Your task to perform on an android device: set an alarm Image 0: 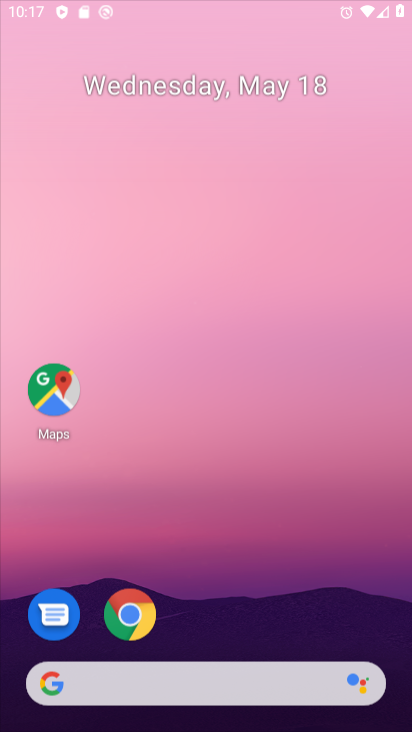
Step 0: drag from (164, 649) to (164, 252)
Your task to perform on an android device: set an alarm Image 1: 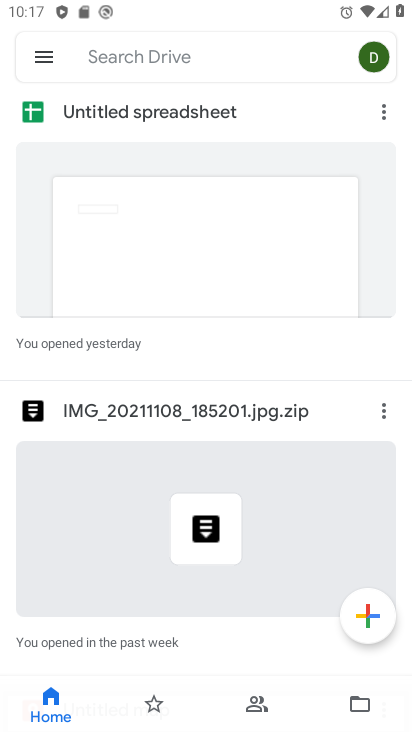
Step 1: press back button
Your task to perform on an android device: set an alarm Image 2: 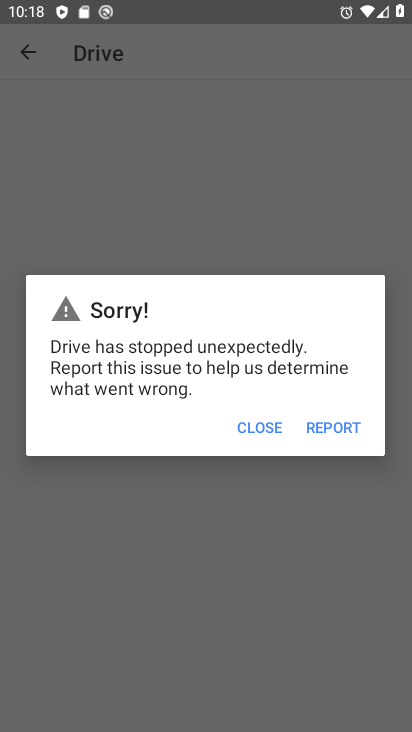
Step 2: click (245, 420)
Your task to perform on an android device: set an alarm Image 3: 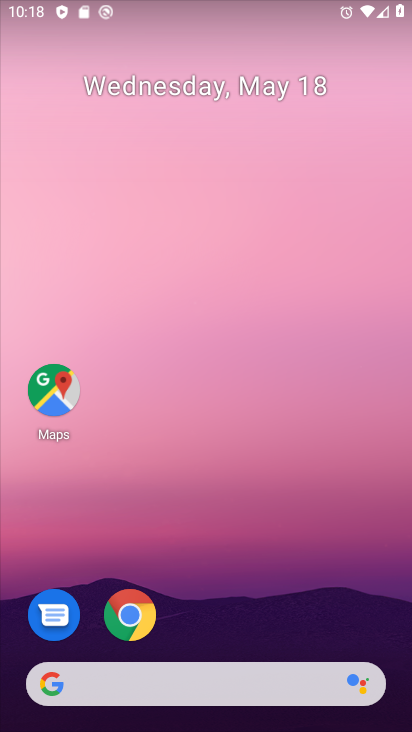
Step 3: drag from (203, 666) to (183, 184)
Your task to perform on an android device: set an alarm Image 4: 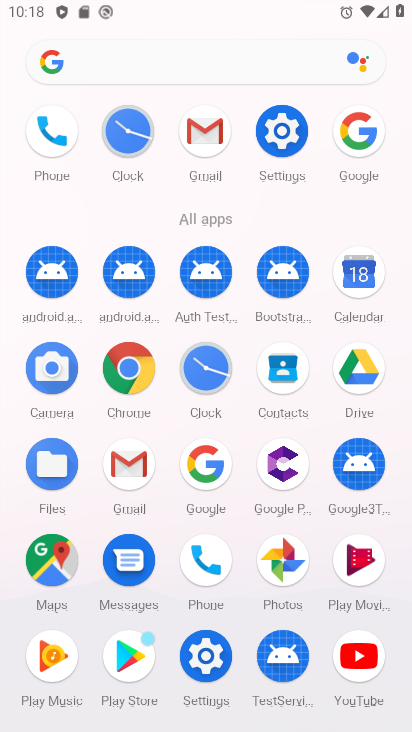
Step 4: click (137, 141)
Your task to perform on an android device: set an alarm Image 5: 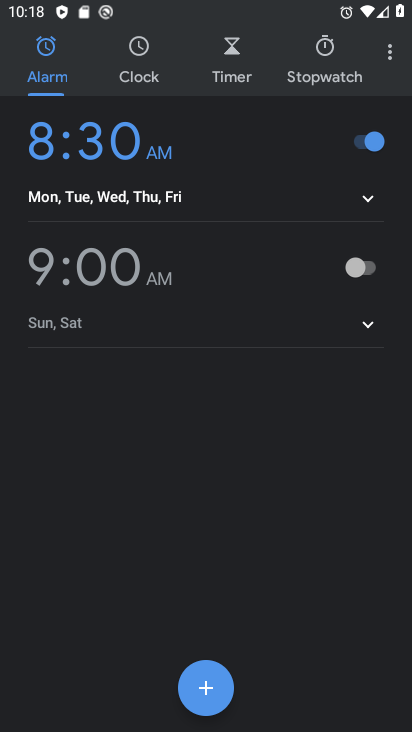
Step 5: click (360, 138)
Your task to perform on an android device: set an alarm Image 6: 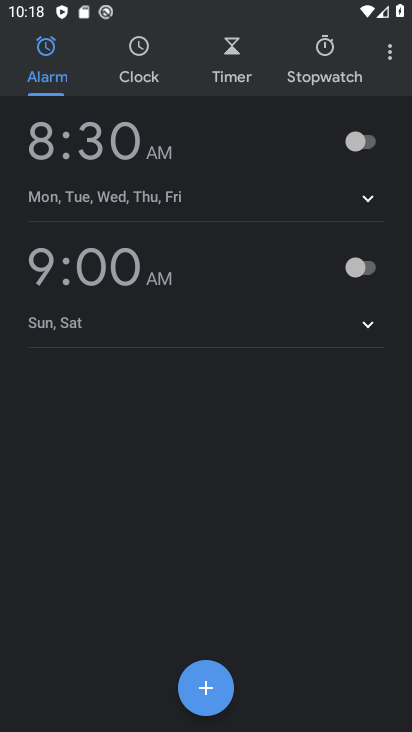
Step 6: click (204, 683)
Your task to perform on an android device: set an alarm Image 7: 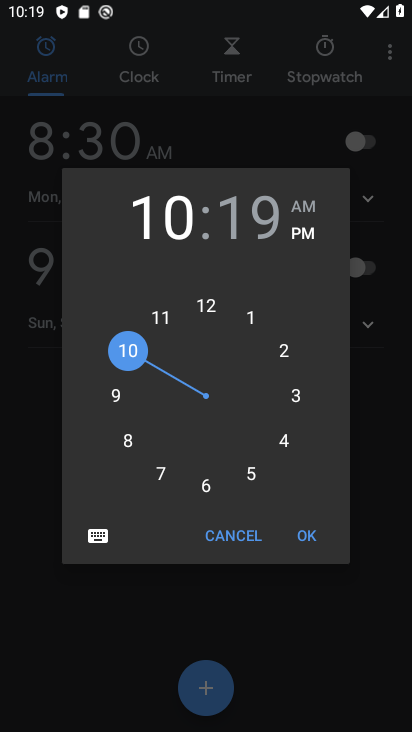
Step 7: click (210, 307)
Your task to perform on an android device: set an alarm Image 8: 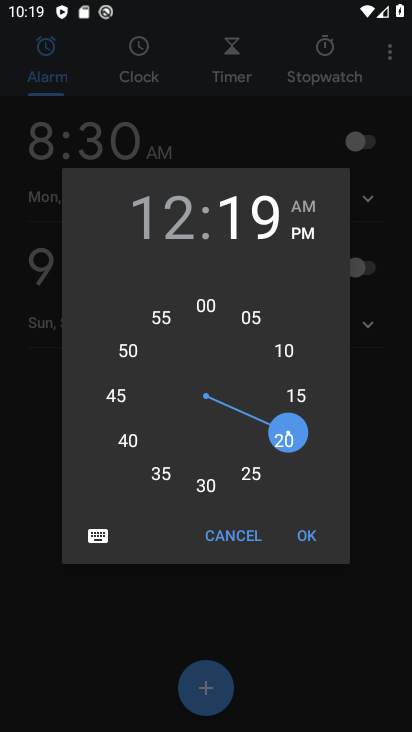
Step 8: click (210, 481)
Your task to perform on an android device: set an alarm Image 9: 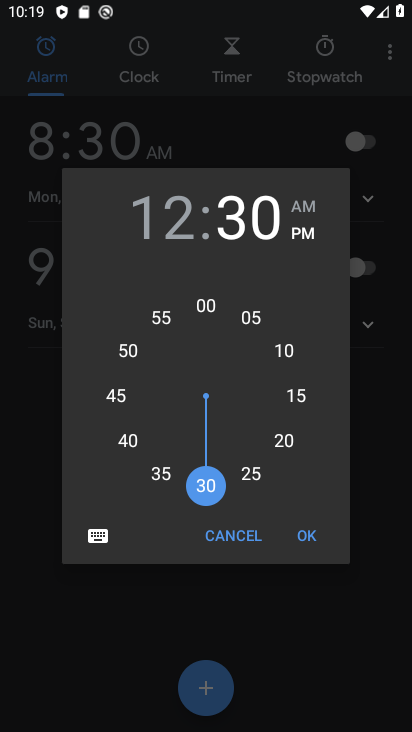
Step 9: click (301, 230)
Your task to perform on an android device: set an alarm Image 10: 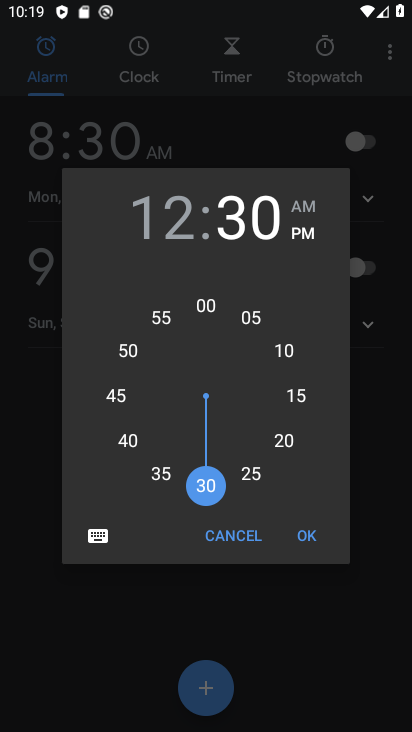
Step 10: click (316, 524)
Your task to perform on an android device: set an alarm Image 11: 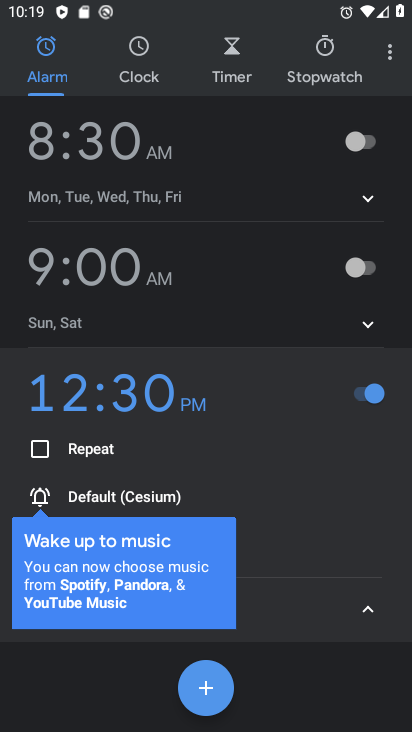
Step 11: task complete